Your task to perform on an android device: Add jbl charge 4 to the cart on newegg.com Image 0: 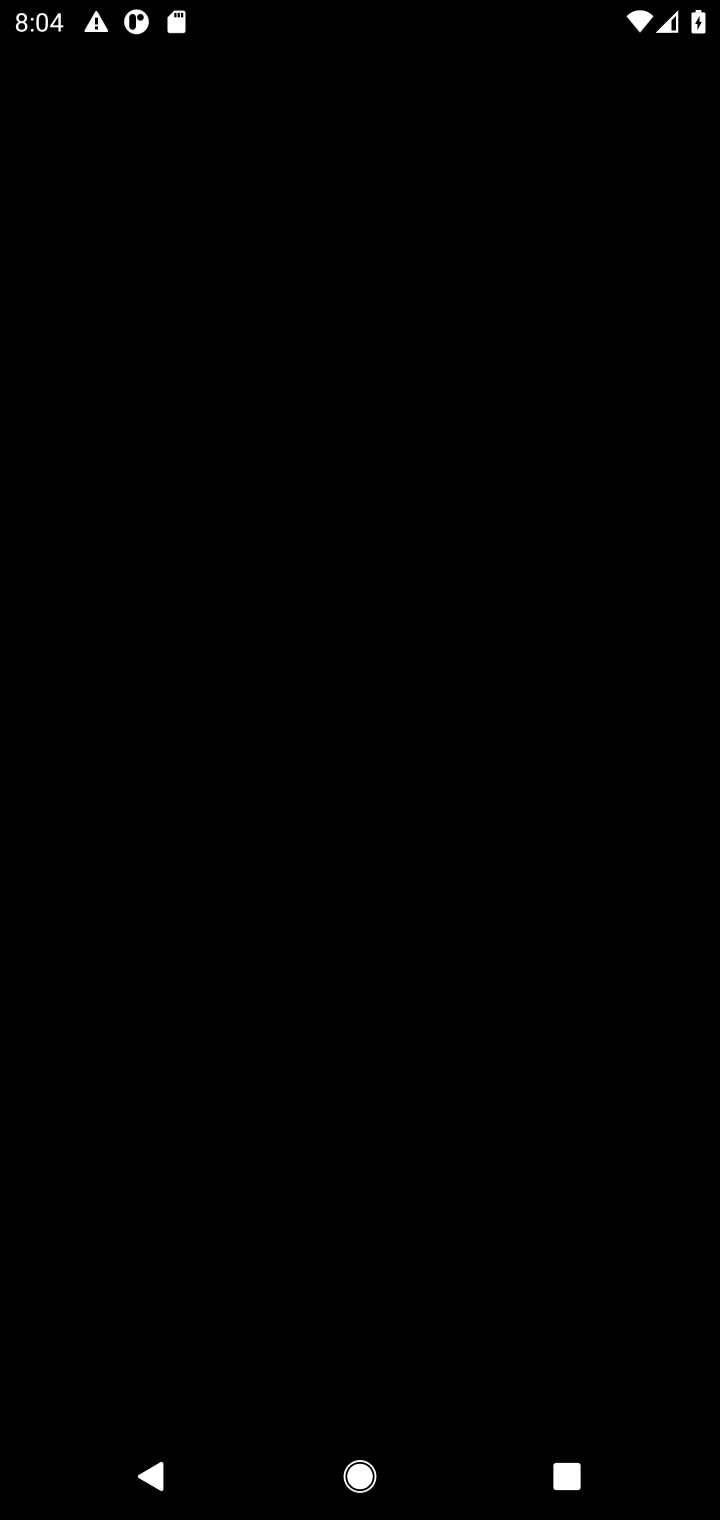
Step 0: press home button
Your task to perform on an android device: Add jbl charge 4 to the cart on newegg.com Image 1: 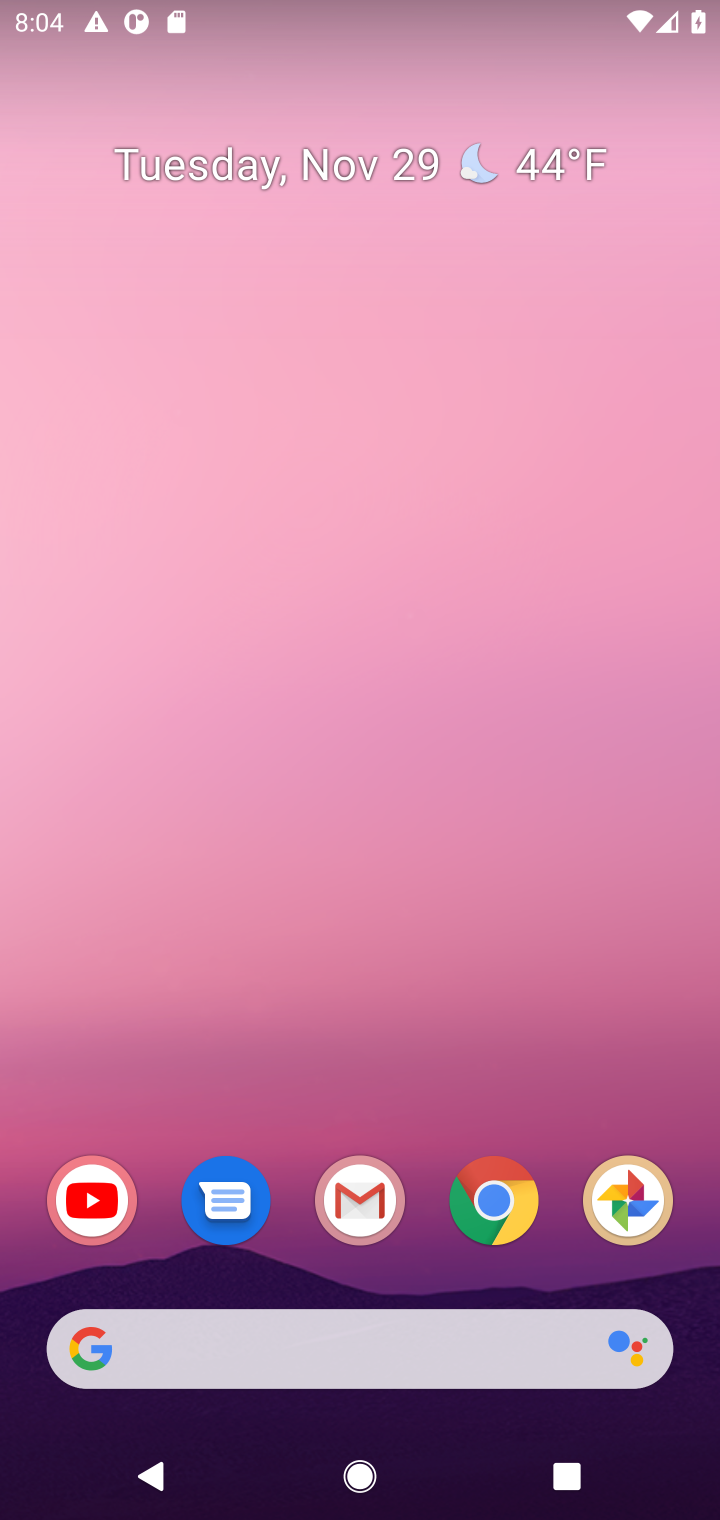
Step 1: click (342, 1332)
Your task to perform on an android device: Add jbl charge 4 to the cart on newegg.com Image 2: 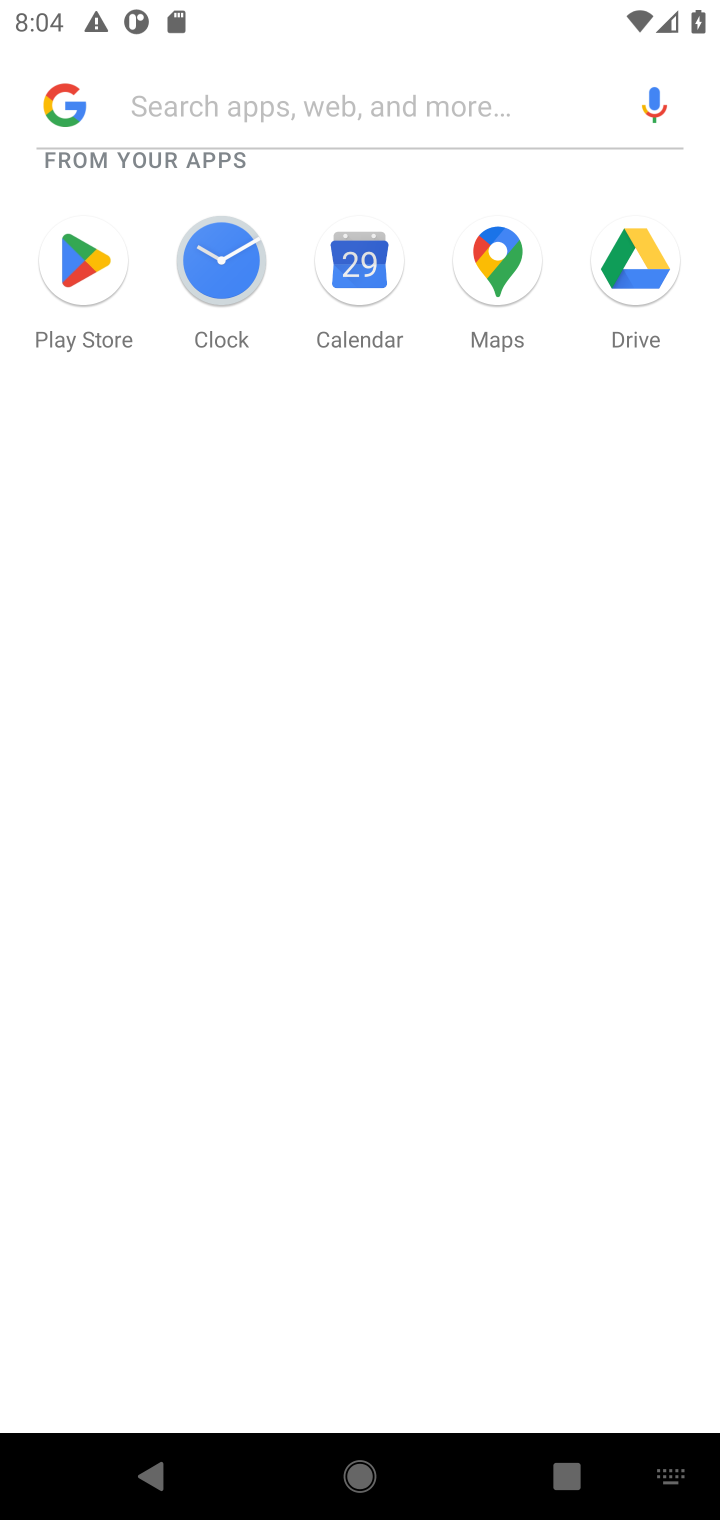
Step 2: type "newegg.com"
Your task to perform on an android device: Add jbl charge 4 to the cart on newegg.com Image 3: 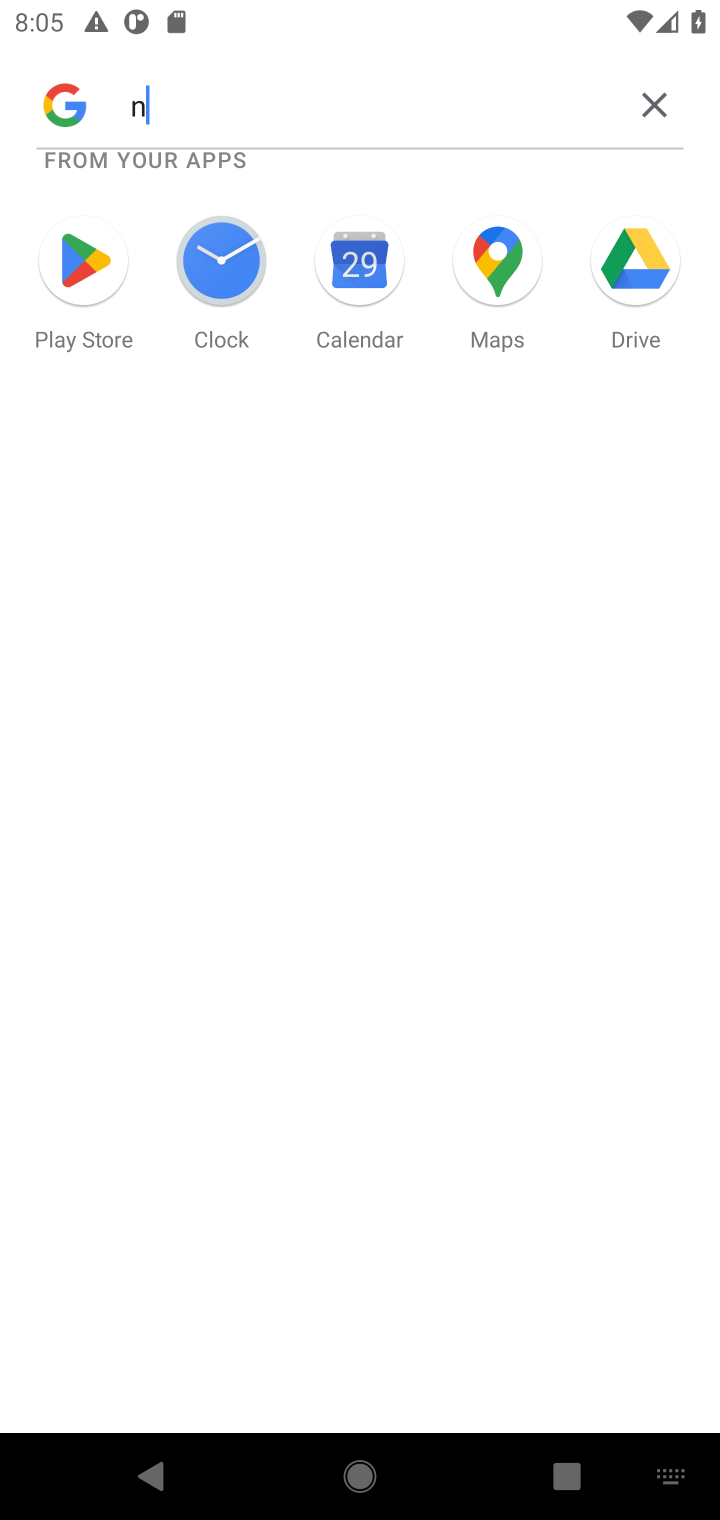
Step 3: press home button
Your task to perform on an android device: Add jbl charge 4 to the cart on newegg.com Image 4: 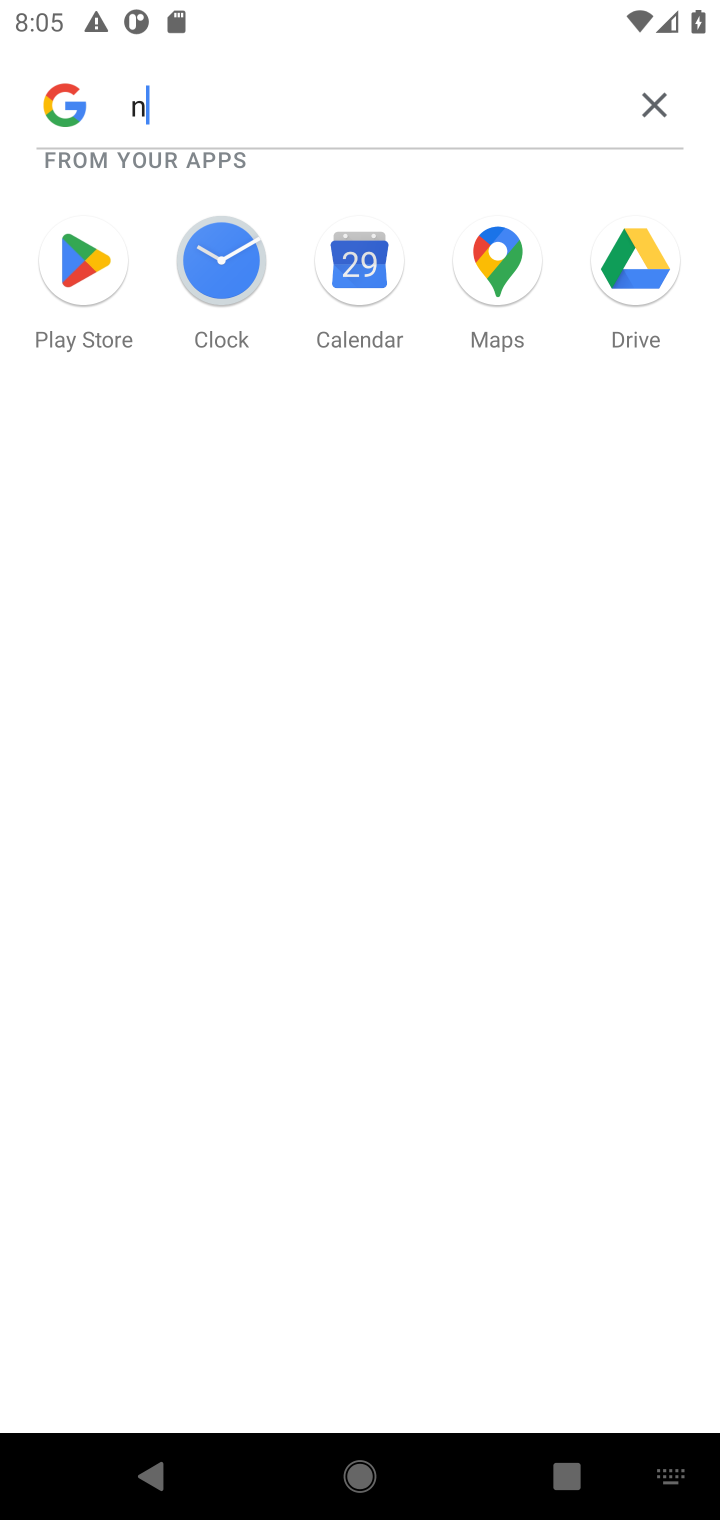
Step 4: press home button
Your task to perform on an android device: Add jbl charge 4 to the cart on newegg.com Image 5: 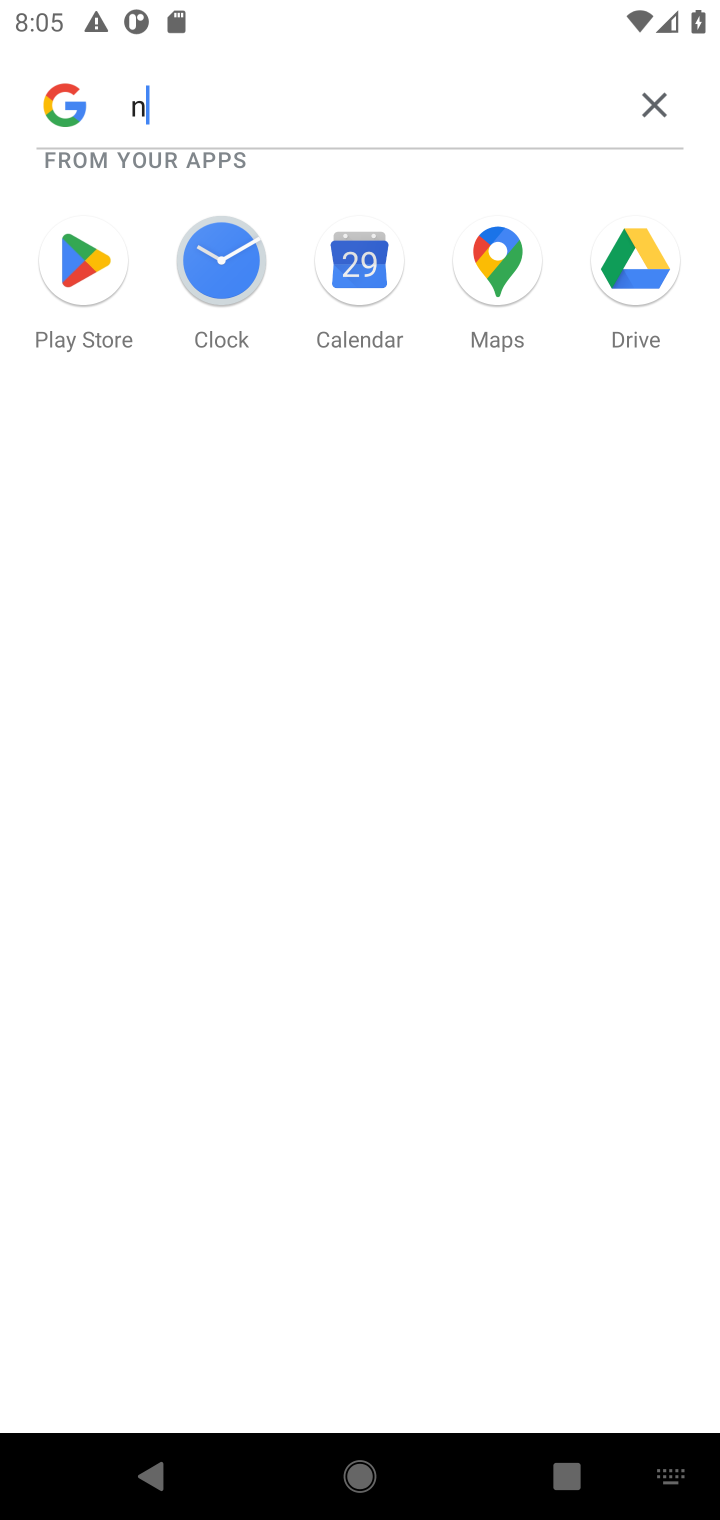
Step 5: press home button
Your task to perform on an android device: Add jbl charge 4 to the cart on newegg.com Image 6: 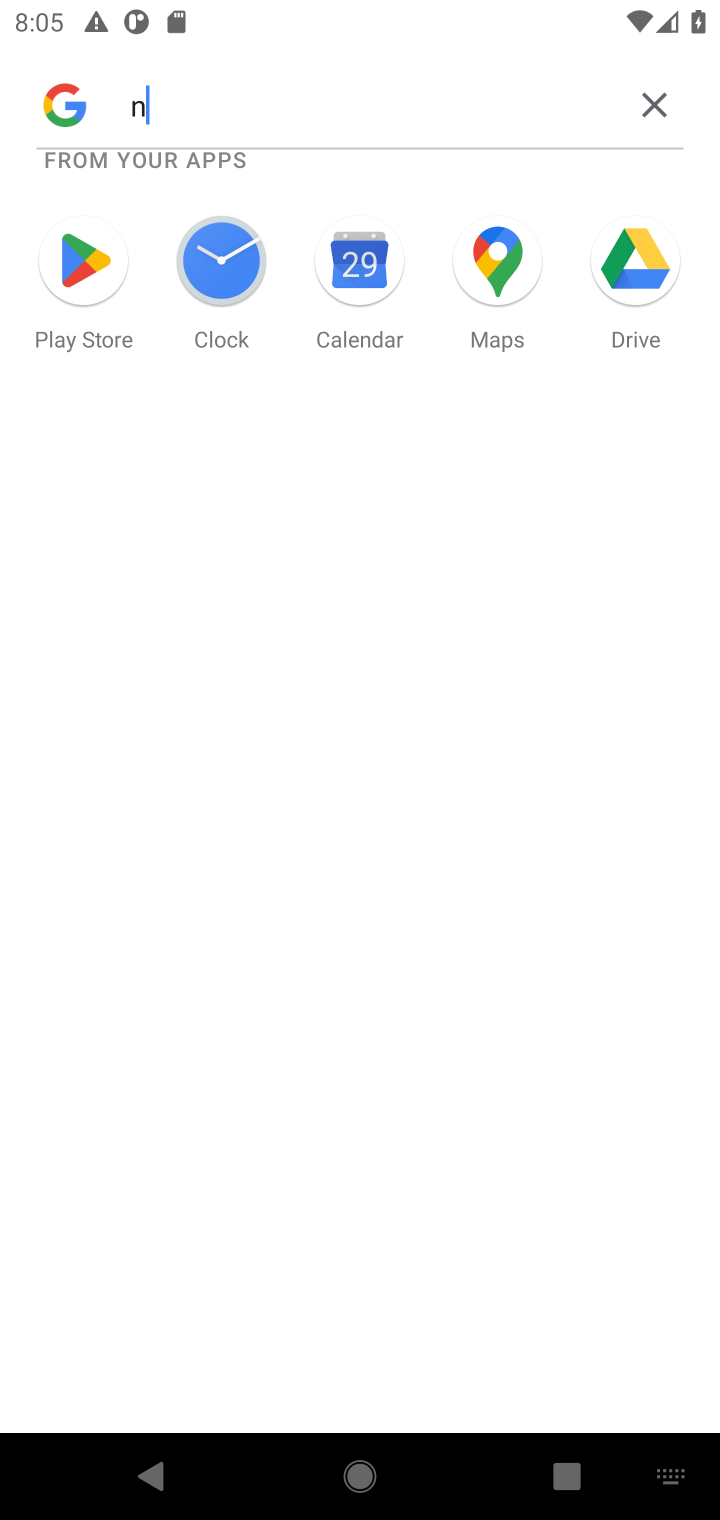
Step 6: press home button
Your task to perform on an android device: Add jbl charge 4 to the cart on newegg.com Image 7: 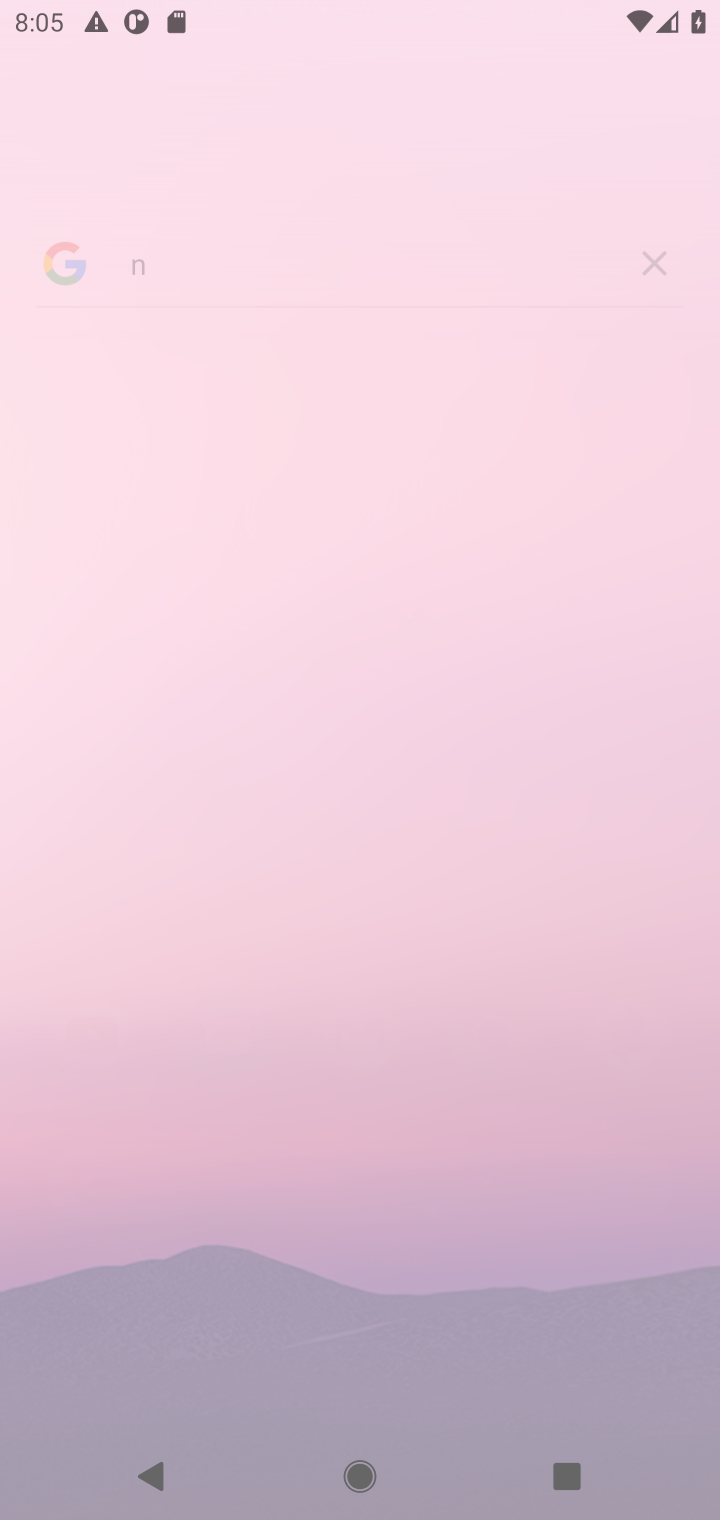
Step 7: press home button
Your task to perform on an android device: Add jbl charge 4 to the cart on newegg.com Image 8: 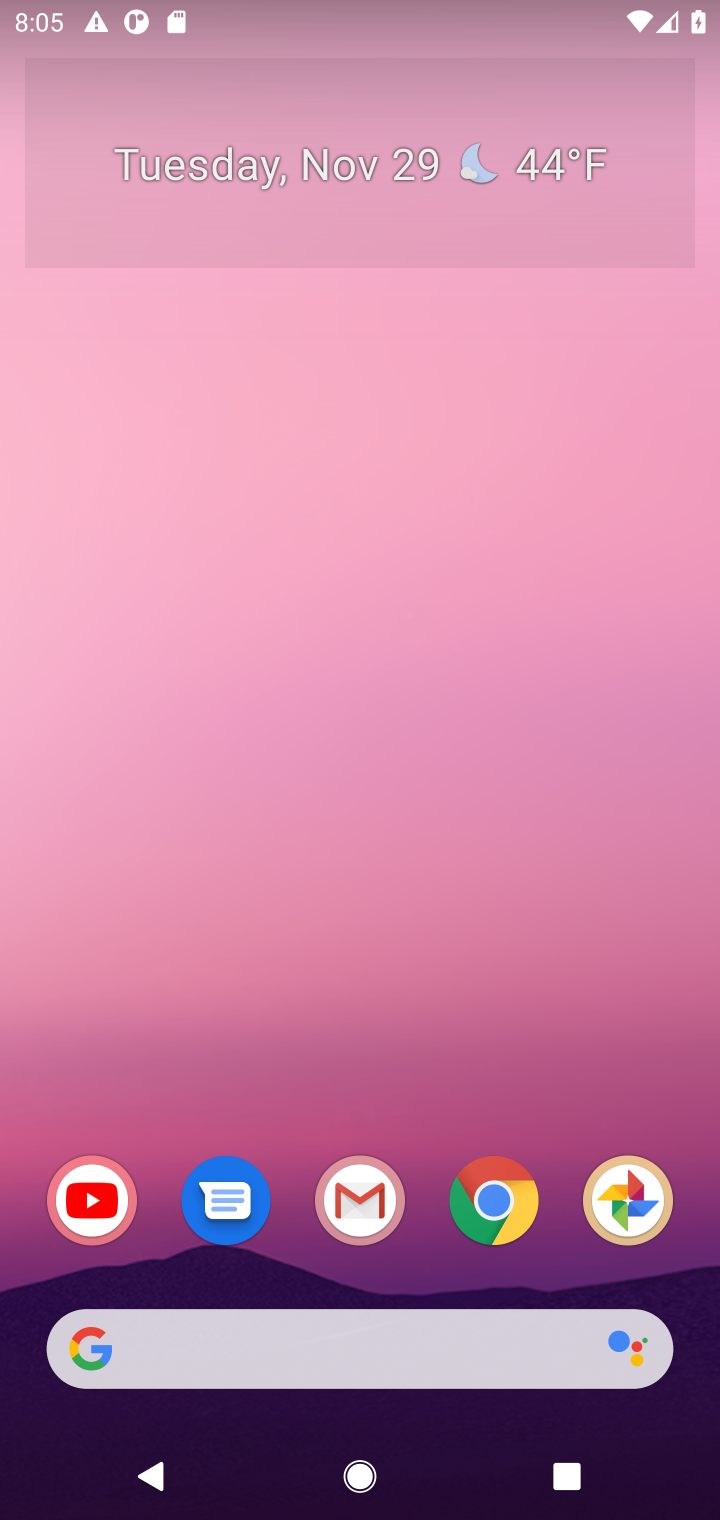
Step 8: press home button
Your task to perform on an android device: Add jbl charge 4 to the cart on newegg.com Image 9: 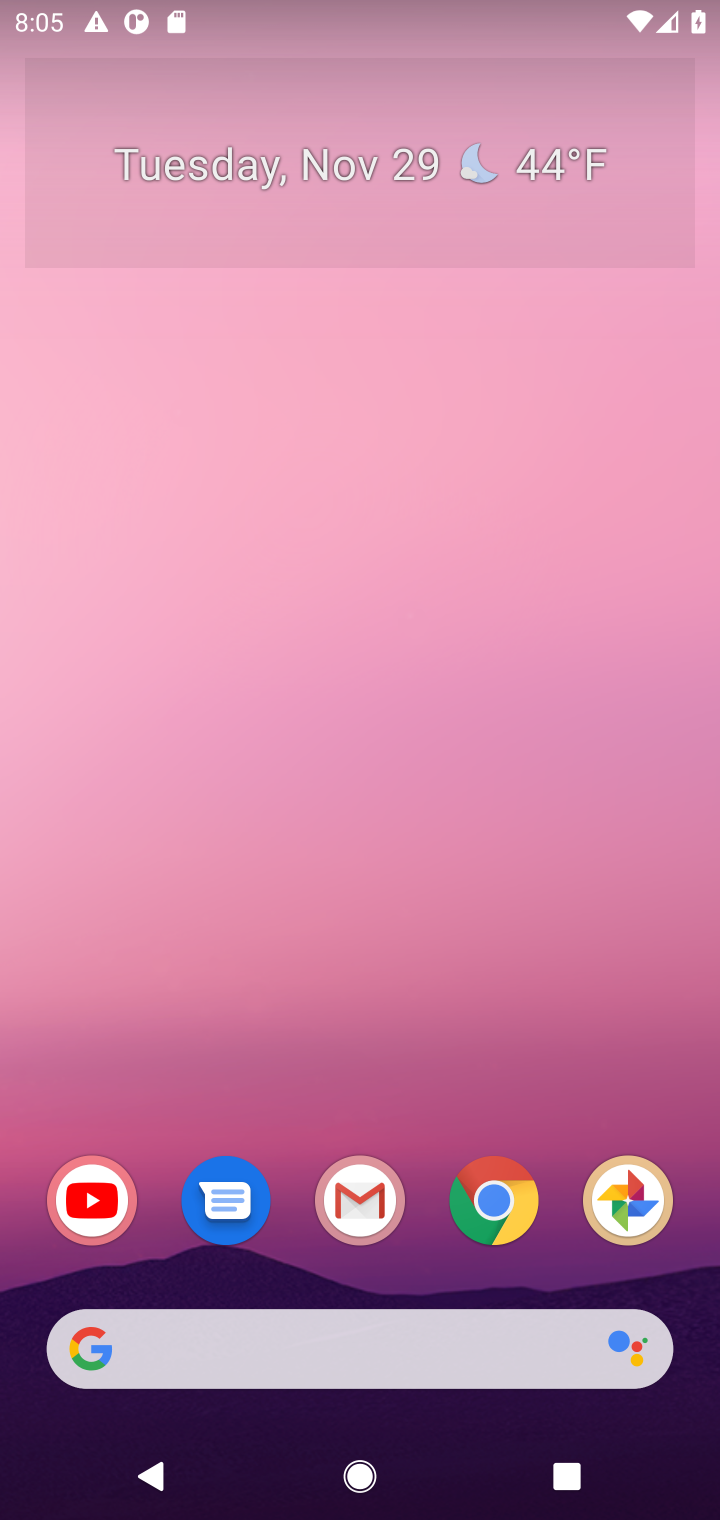
Step 9: click (471, 1218)
Your task to perform on an android device: Add jbl charge 4 to the cart on newegg.com Image 10: 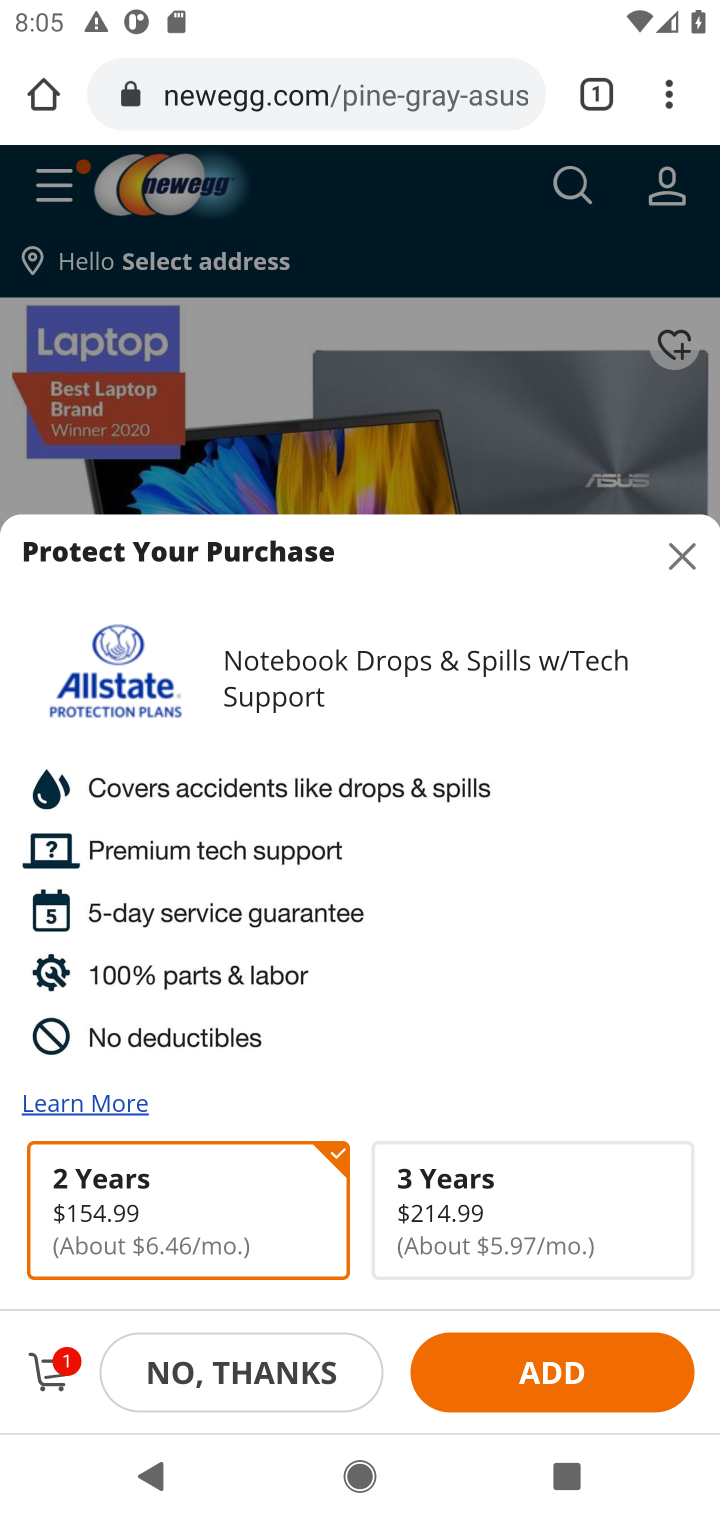
Step 10: click (668, 560)
Your task to perform on an android device: Add jbl charge 4 to the cart on newegg.com Image 11: 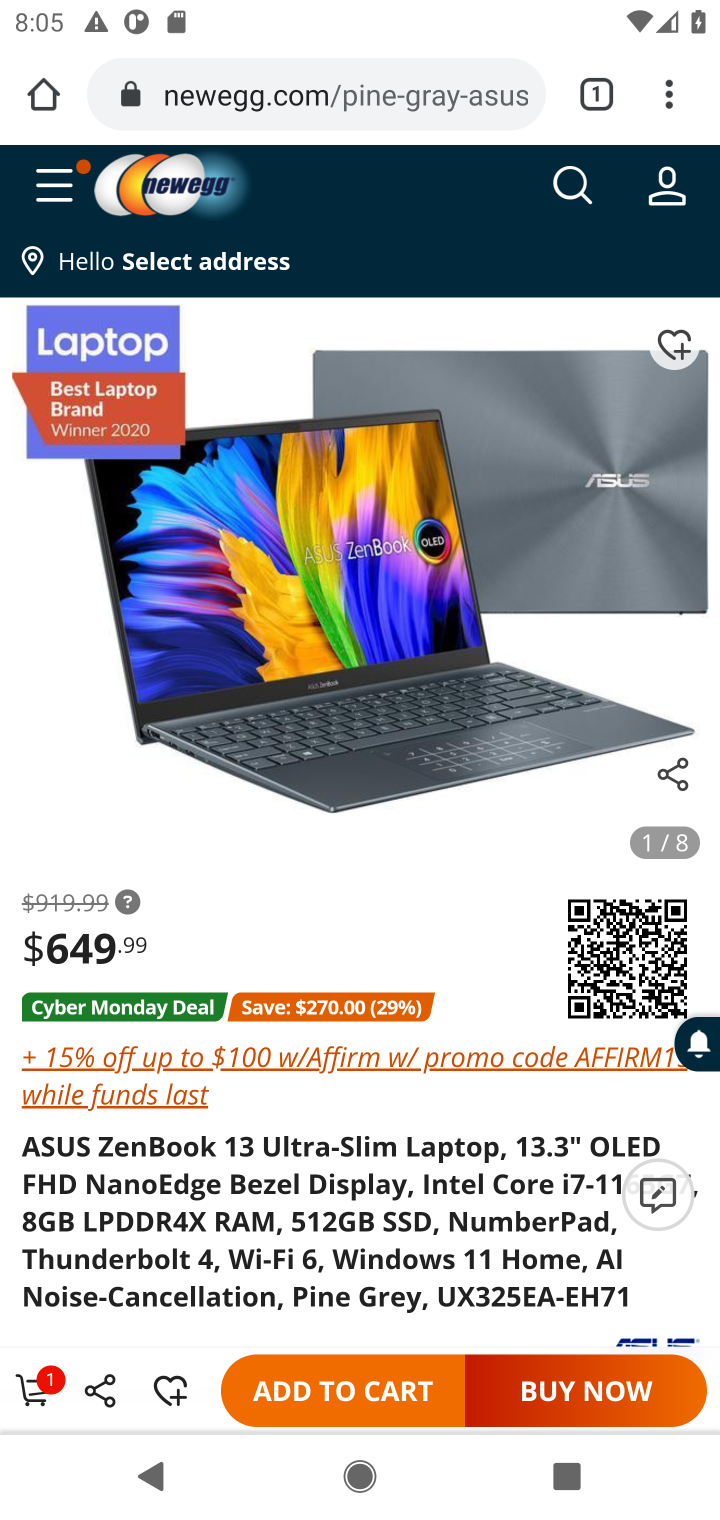
Step 11: click (553, 167)
Your task to perform on an android device: Add jbl charge 4 to the cart on newegg.com Image 12: 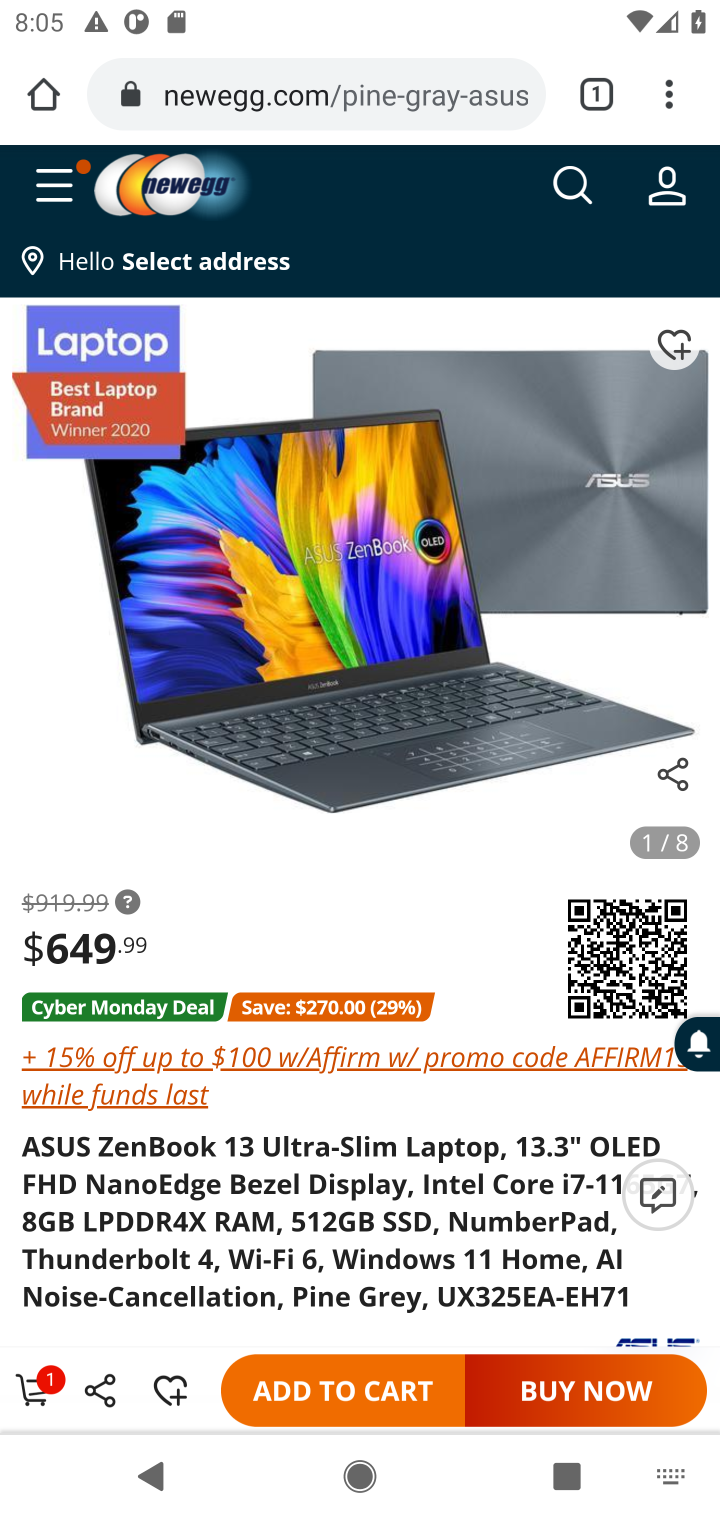
Step 12: click (582, 225)
Your task to perform on an android device: Add jbl charge 4 to the cart on newegg.com Image 13: 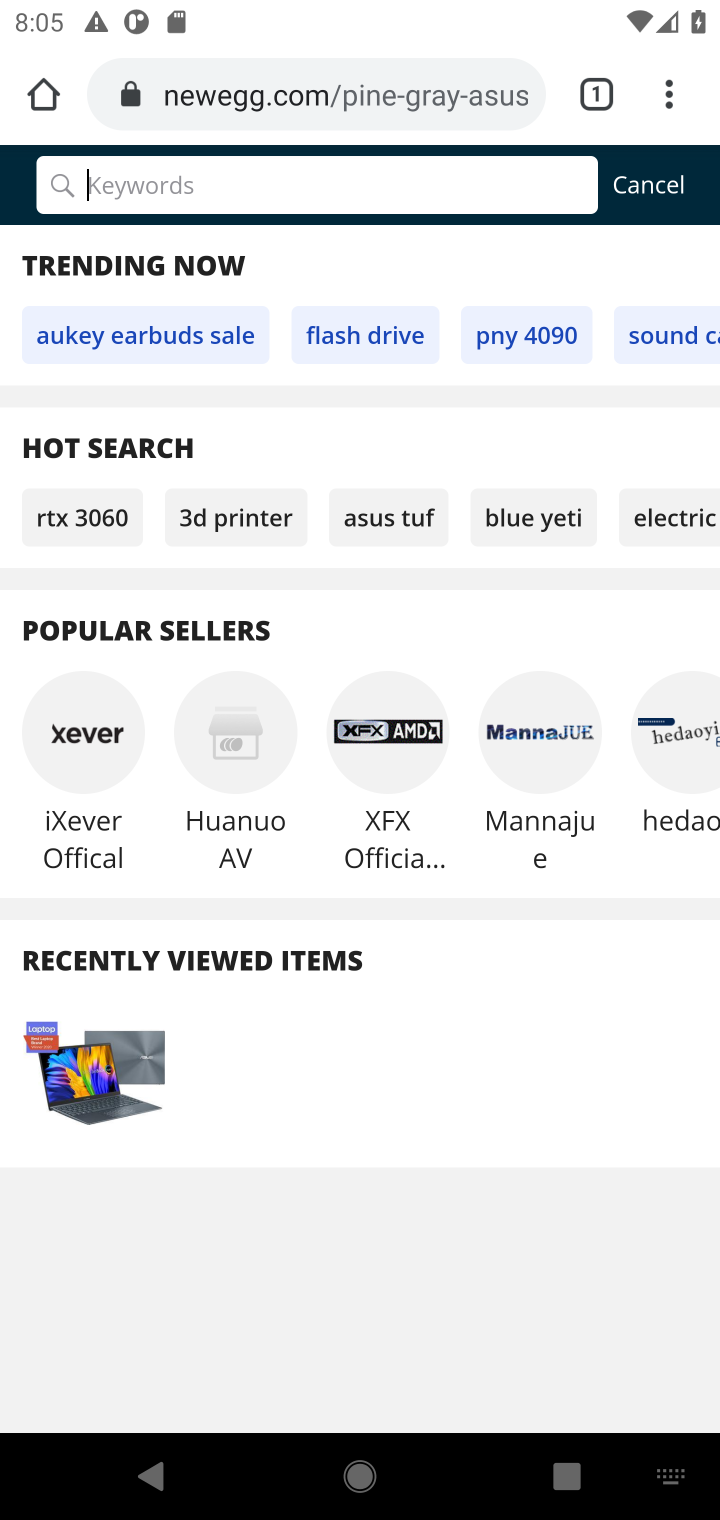
Step 13: type "jbl charge 4"
Your task to perform on an android device: Add jbl charge 4 to the cart on newegg.com Image 14: 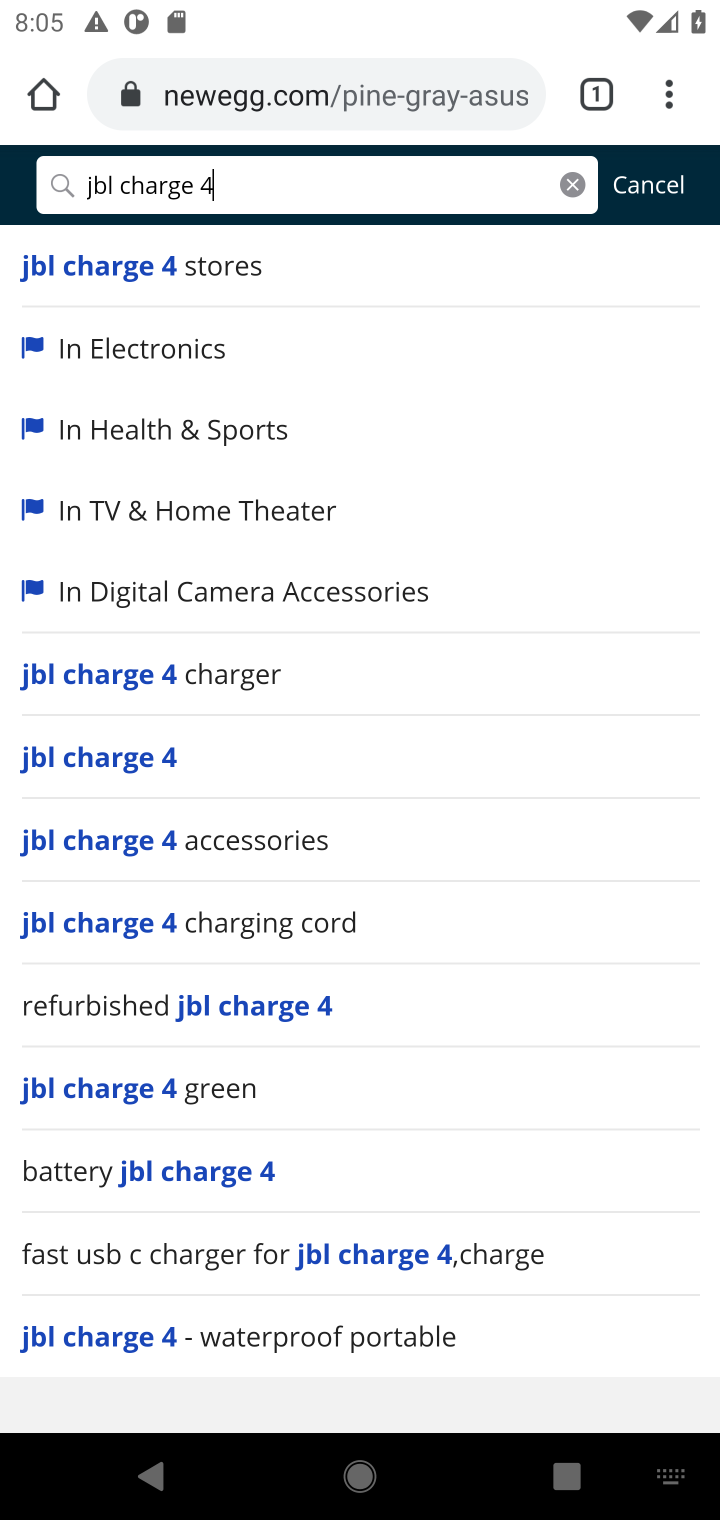
Step 14: click (353, 254)
Your task to perform on an android device: Add jbl charge 4 to the cart on newegg.com Image 15: 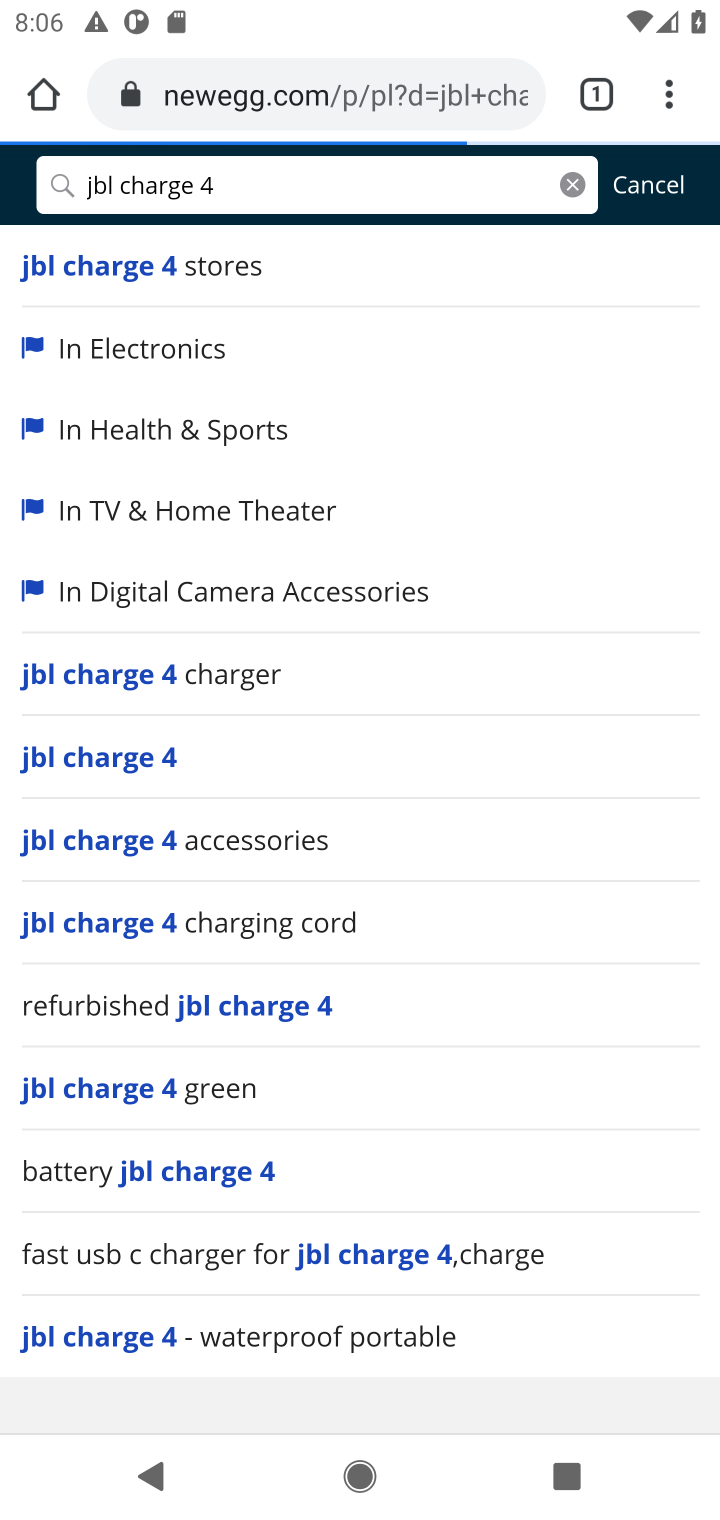
Step 15: click (111, 267)
Your task to perform on an android device: Add jbl charge 4 to the cart on newegg.com Image 16: 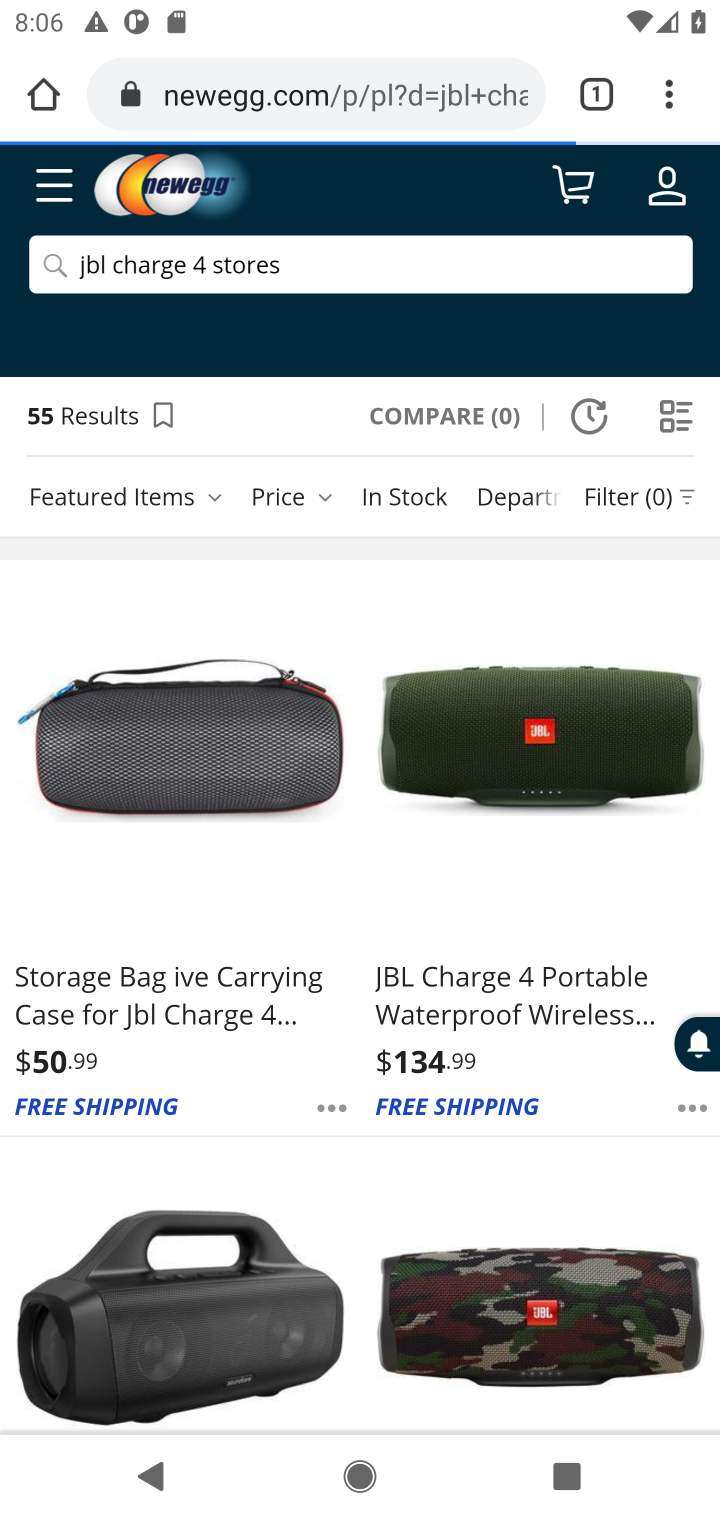
Step 16: click (233, 984)
Your task to perform on an android device: Add jbl charge 4 to the cart on newegg.com Image 17: 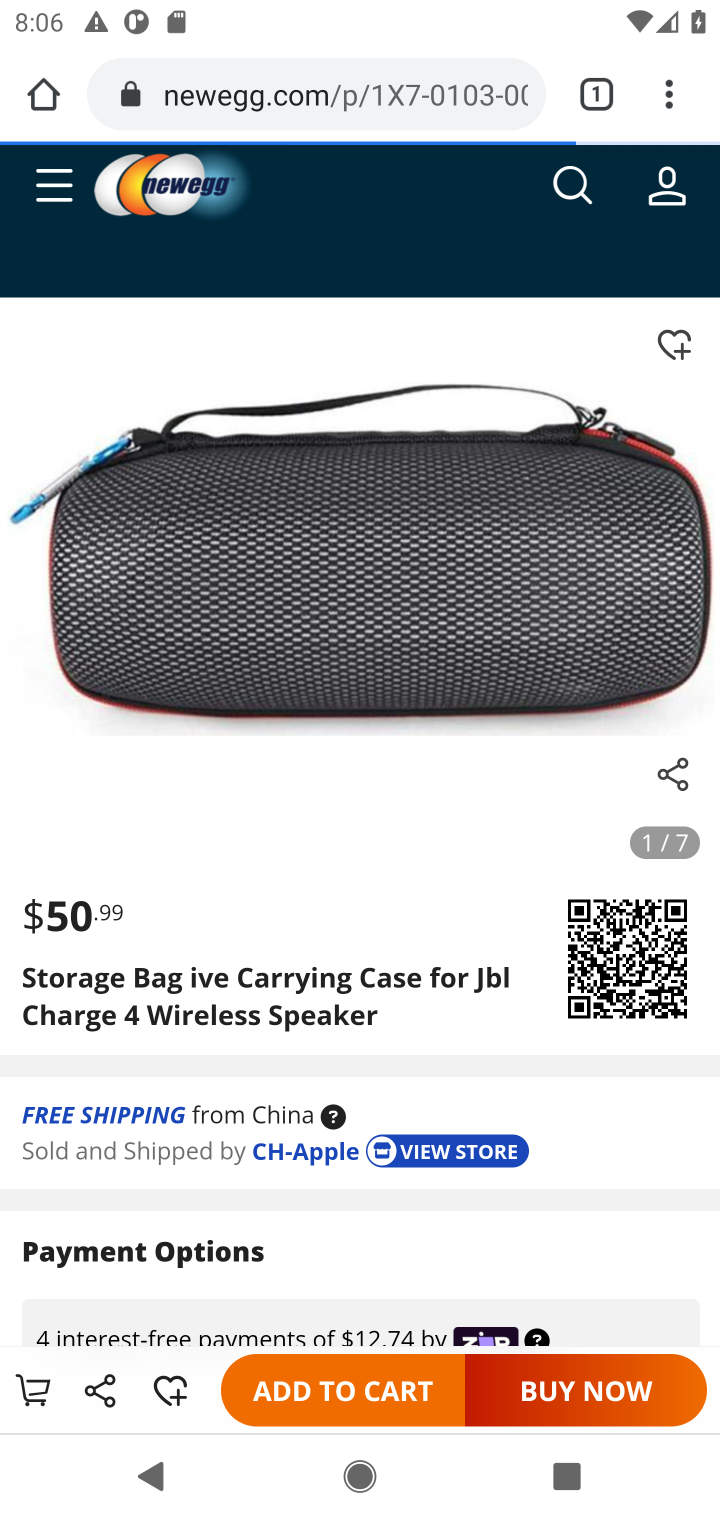
Step 17: click (335, 1386)
Your task to perform on an android device: Add jbl charge 4 to the cart on newegg.com Image 18: 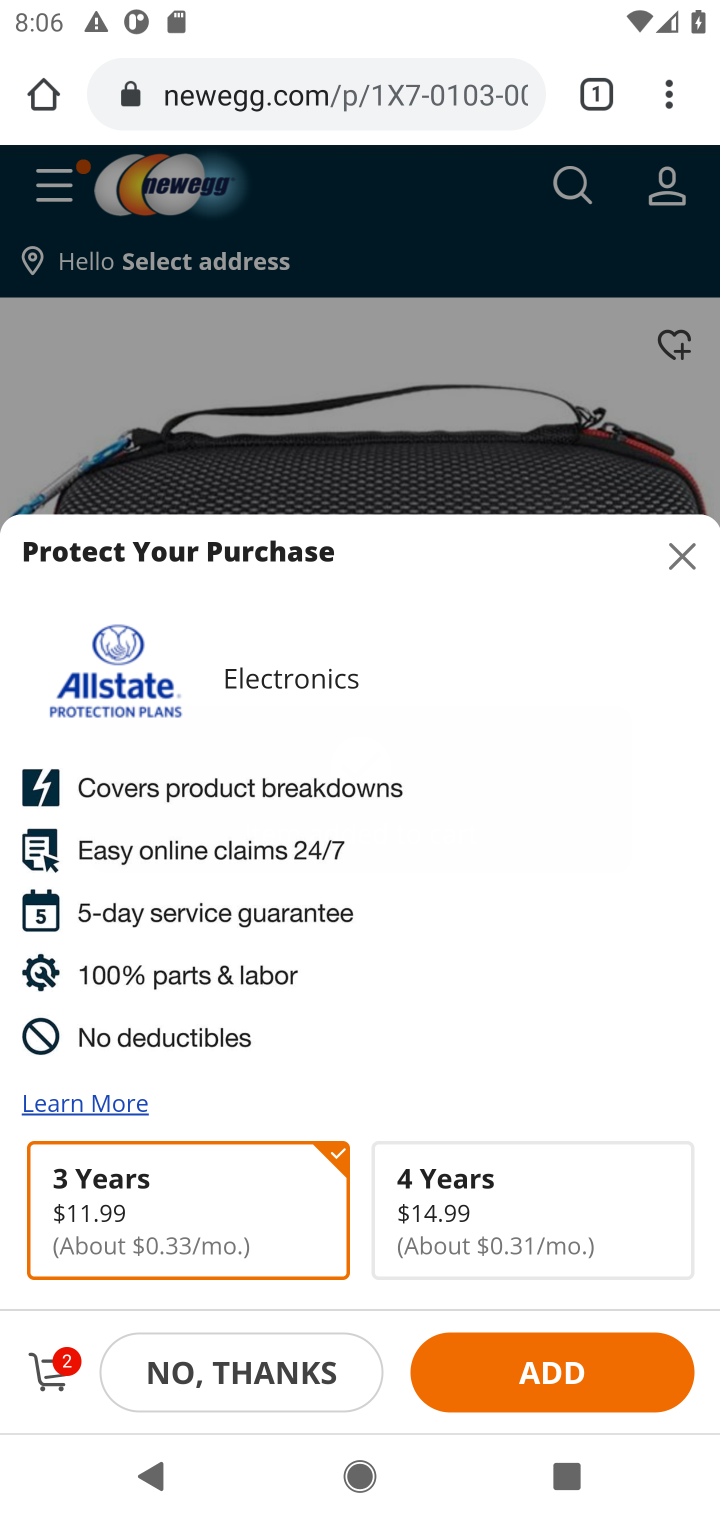
Step 18: task complete